Your task to perform on an android device: Open wifi settings Image 0: 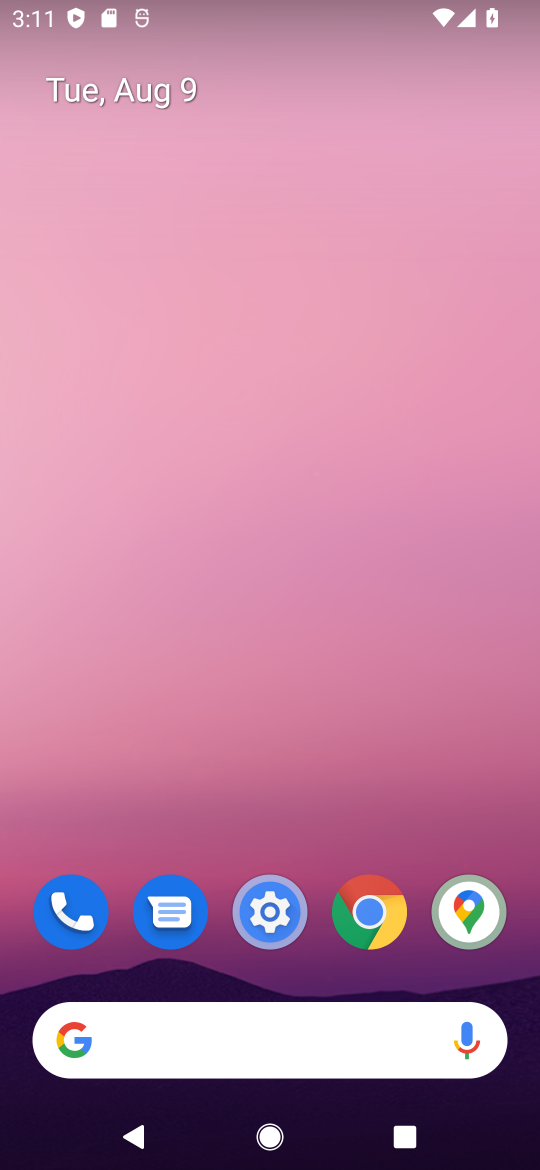
Step 0: click (272, 907)
Your task to perform on an android device: Open wifi settings Image 1: 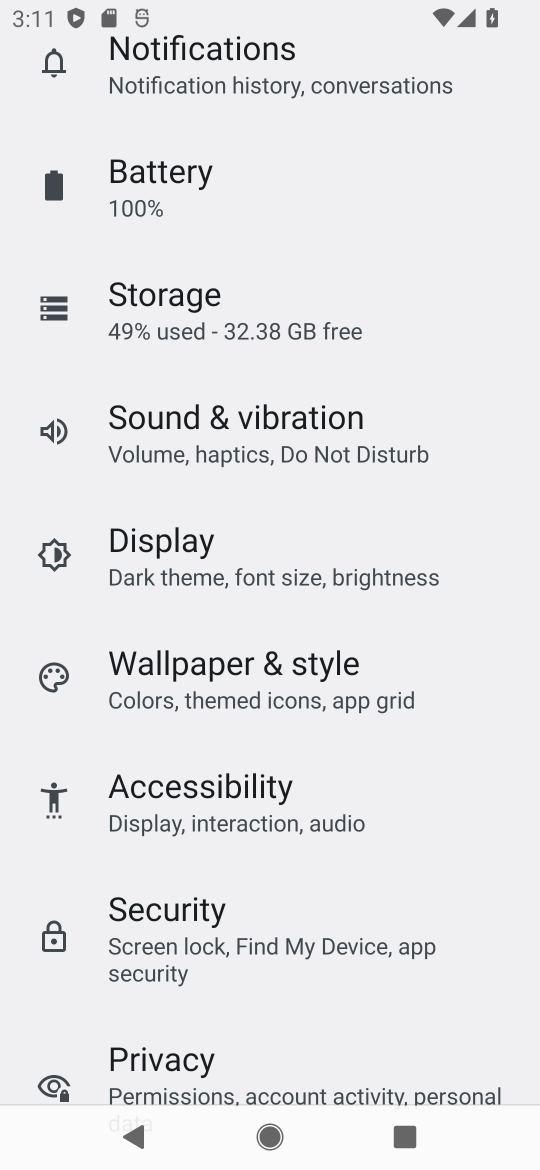
Step 1: drag from (274, 237) to (258, 1130)
Your task to perform on an android device: Open wifi settings Image 2: 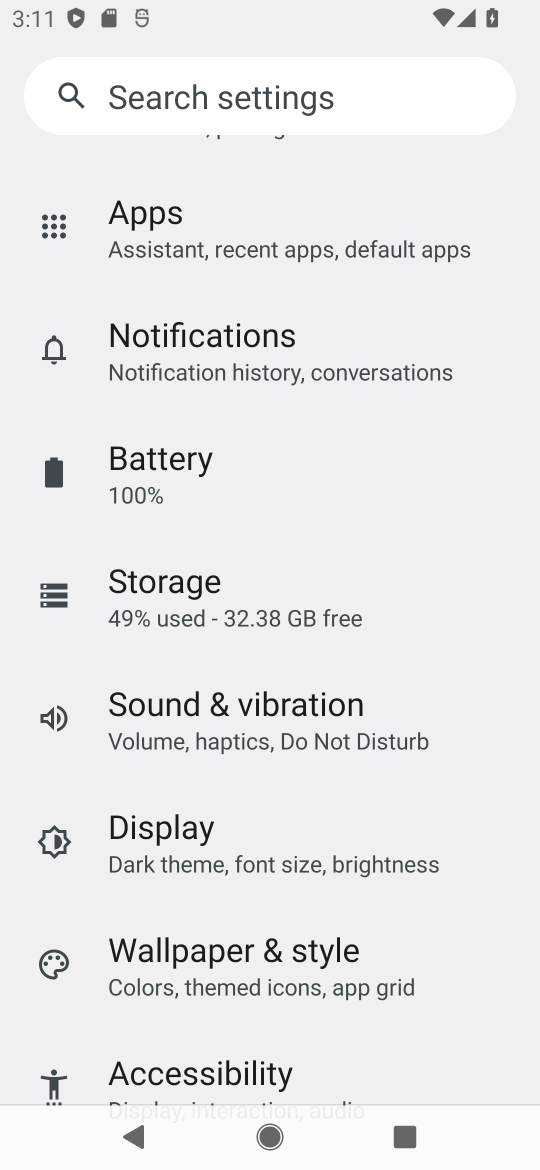
Step 2: drag from (310, 435) to (137, 1067)
Your task to perform on an android device: Open wifi settings Image 3: 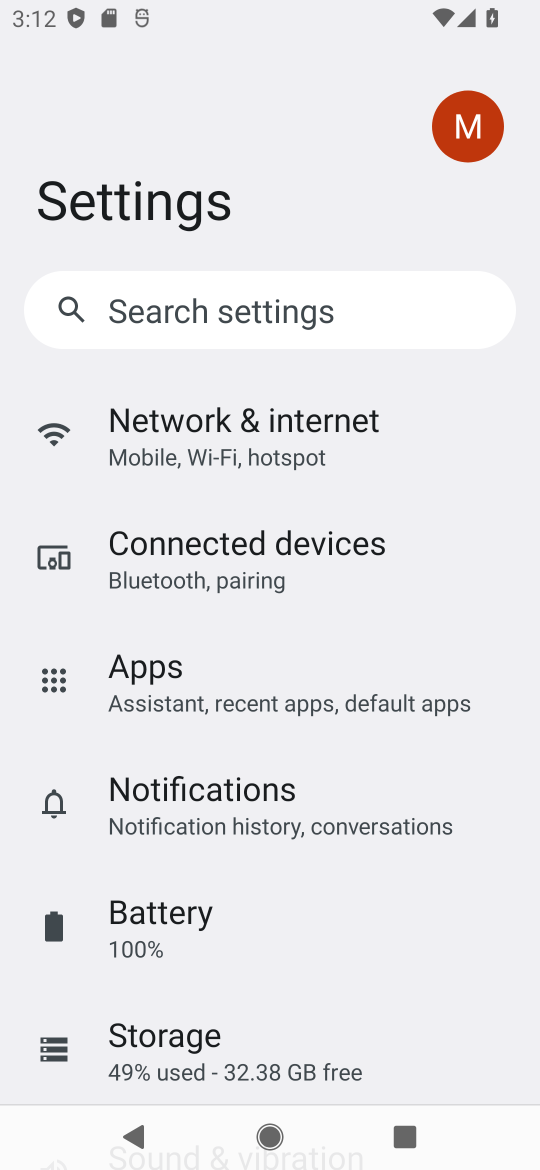
Step 3: click (194, 415)
Your task to perform on an android device: Open wifi settings Image 4: 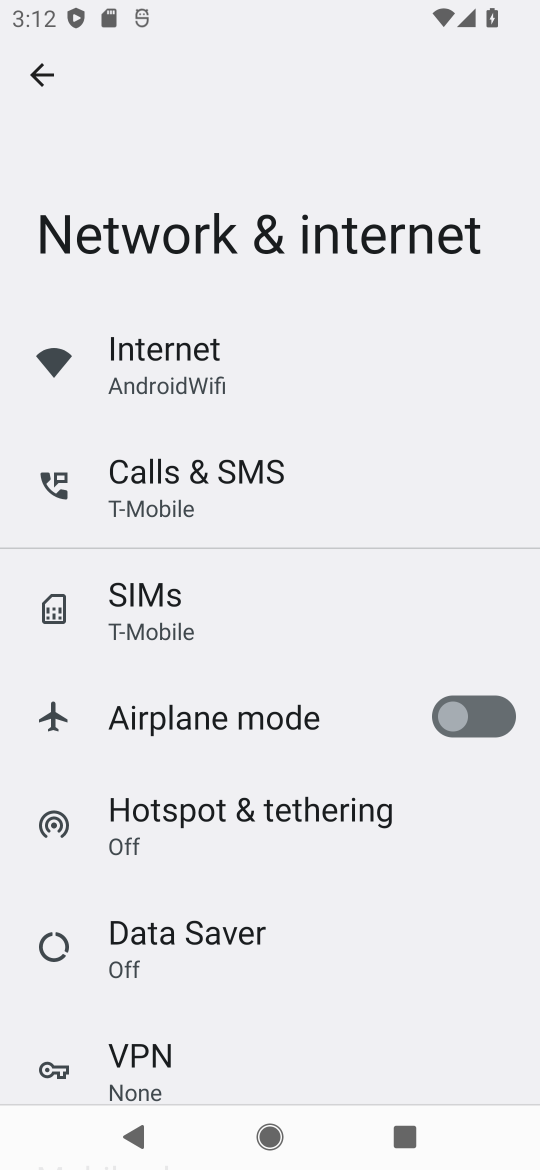
Step 4: click (161, 357)
Your task to perform on an android device: Open wifi settings Image 5: 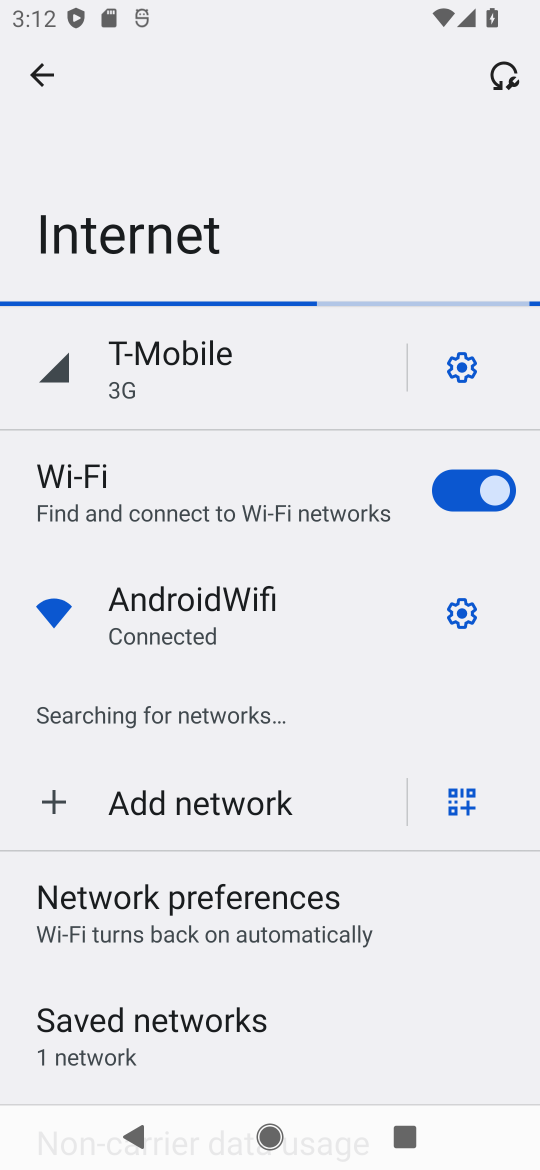
Step 5: task complete